Your task to perform on an android device: change notification settings in the gmail app Image 0: 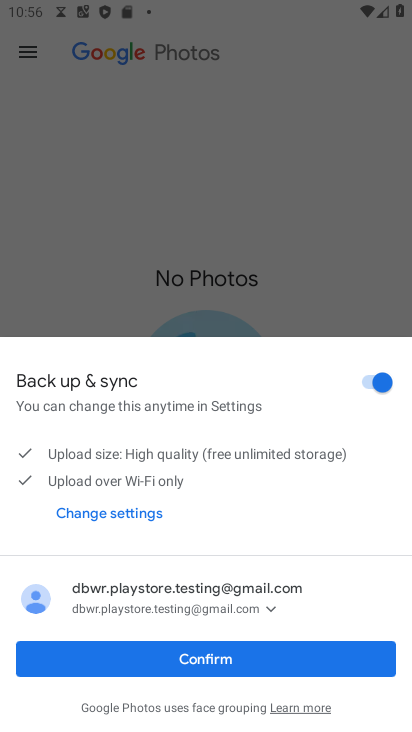
Step 0: press home button
Your task to perform on an android device: change notification settings in the gmail app Image 1: 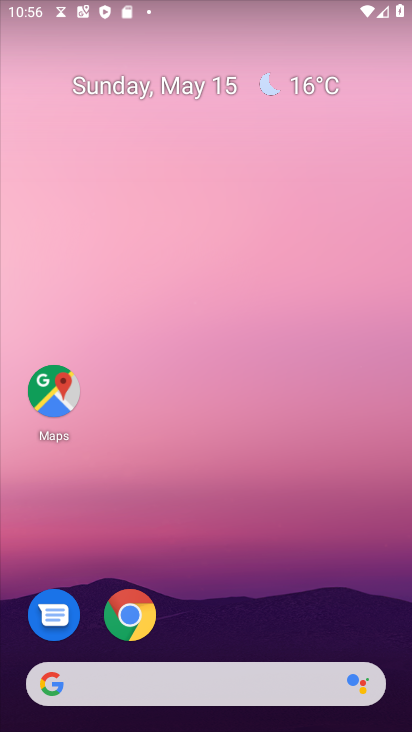
Step 1: drag from (334, 659) to (410, 217)
Your task to perform on an android device: change notification settings in the gmail app Image 2: 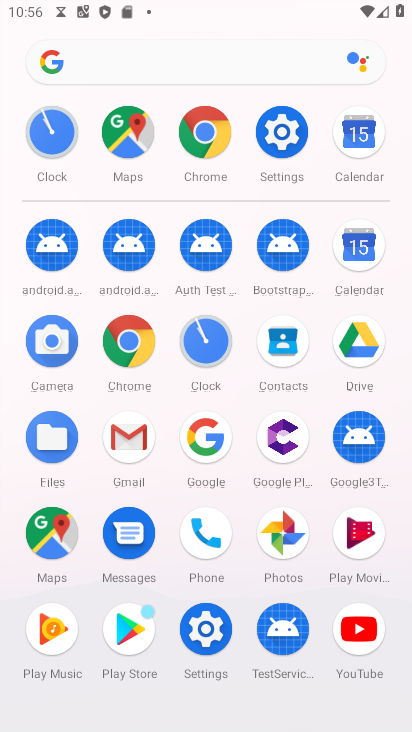
Step 2: click (119, 438)
Your task to perform on an android device: change notification settings in the gmail app Image 3: 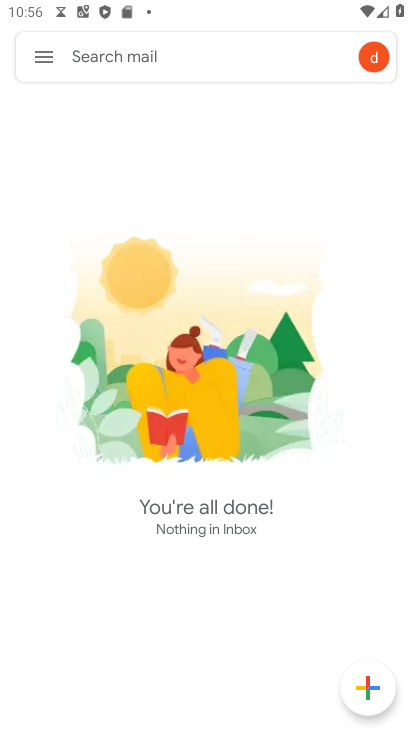
Step 3: click (43, 61)
Your task to perform on an android device: change notification settings in the gmail app Image 4: 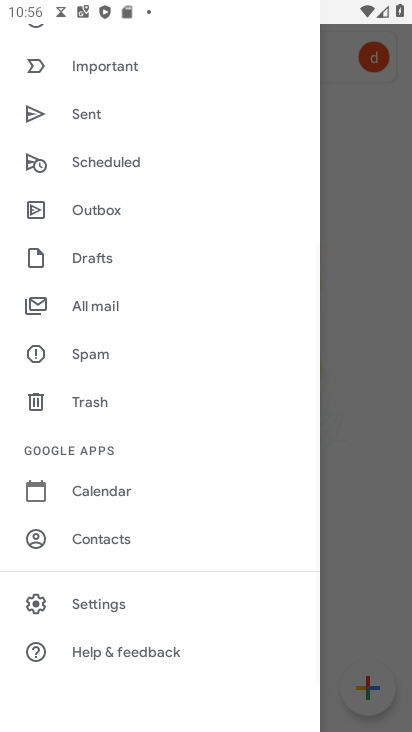
Step 4: click (69, 584)
Your task to perform on an android device: change notification settings in the gmail app Image 5: 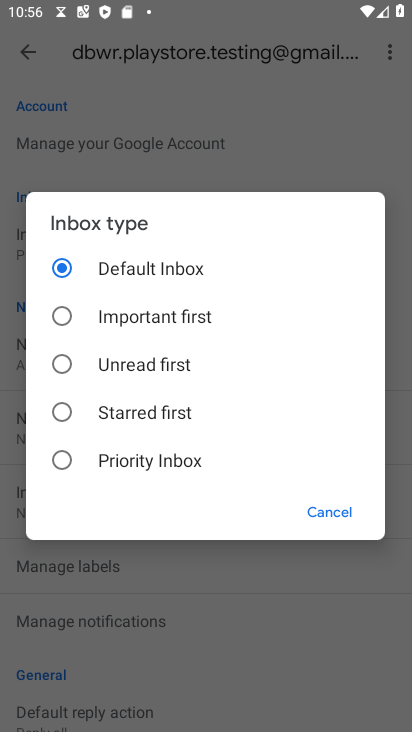
Step 5: click (313, 522)
Your task to perform on an android device: change notification settings in the gmail app Image 6: 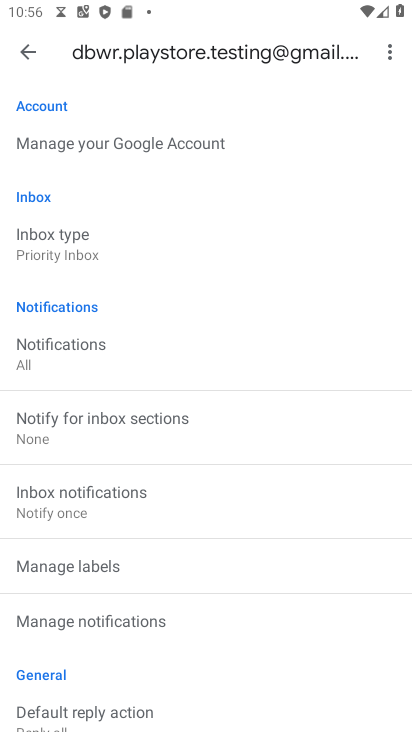
Step 6: click (136, 603)
Your task to perform on an android device: change notification settings in the gmail app Image 7: 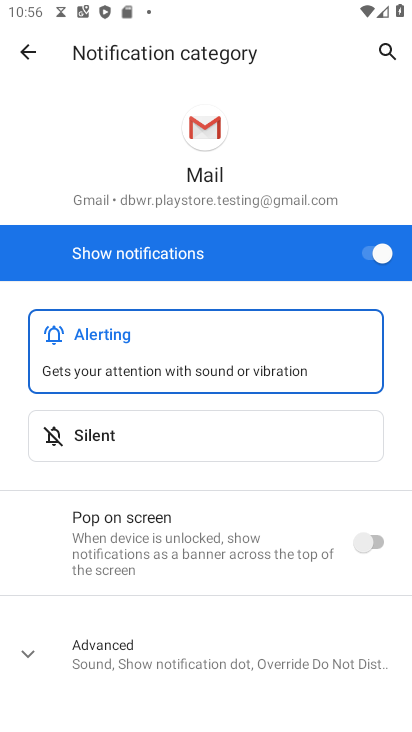
Step 7: click (374, 248)
Your task to perform on an android device: change notification settings in the gmail app Image 8: 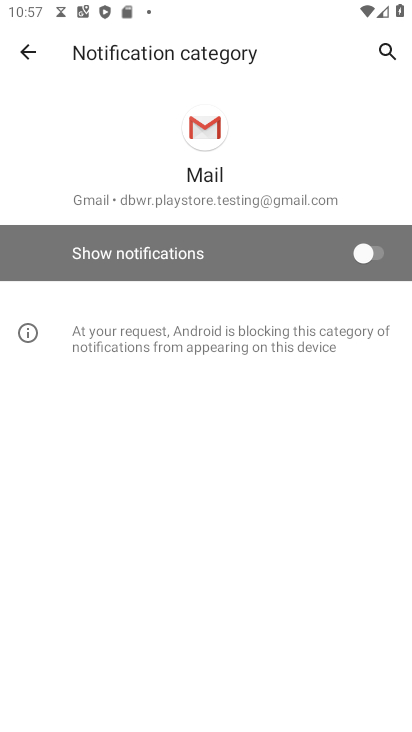
Step 8: task complete